Your task to perform on an android device: toggle improve location accuracy Image 0: 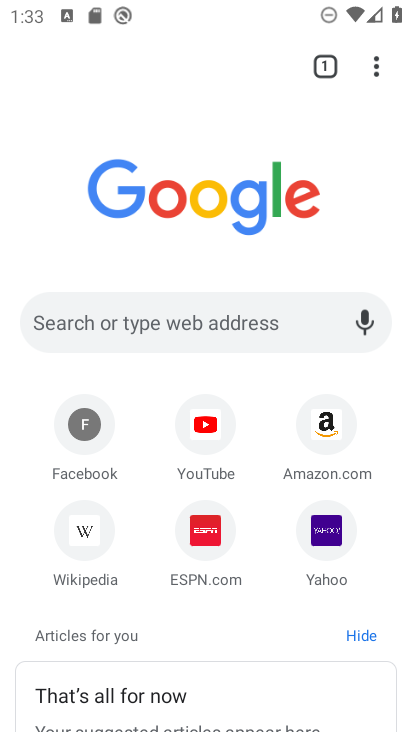
Step 0: press home button
Your task to perform on an android device: toggle improve location accuracy Image 1: 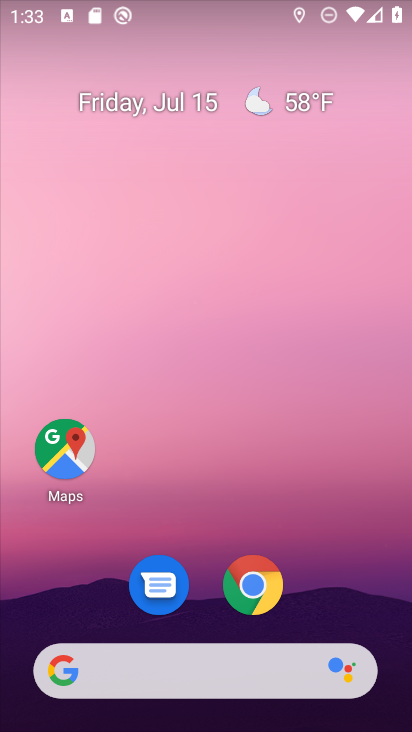
Step 1: drag from (310, 518) to (282, 82)
Your task to perform on an android device: toggle improve location accuracy Image 2: 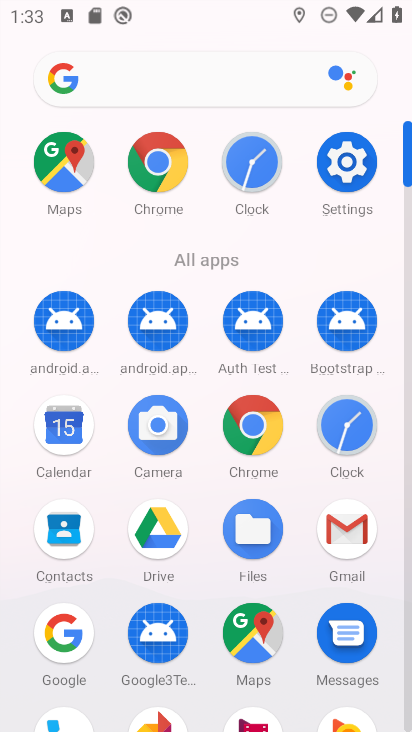
Step 2: click (346, 156)
Your task to perform on an android device: toggle improve location accuracy Image 3: 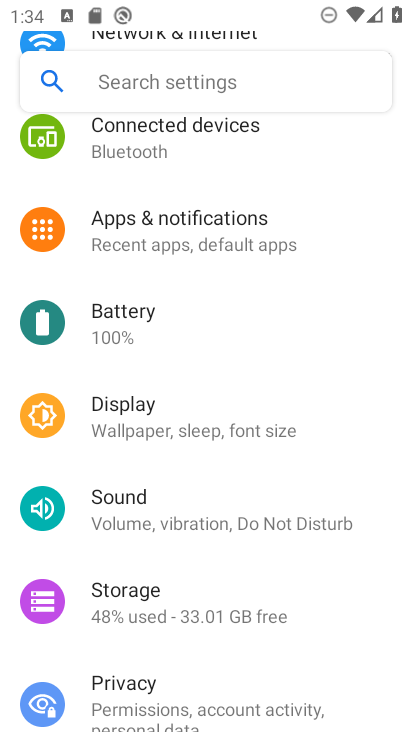
Step 3: drag from (188, 199) to (196, 429)
Your task to perform on an android device: toggle improve location accuracy Image 4: 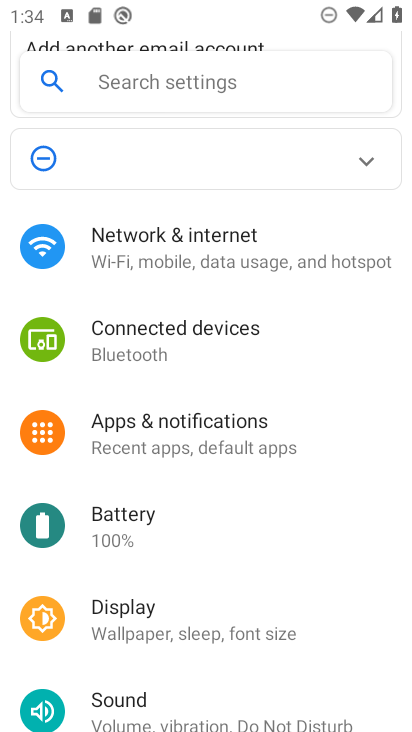
Step 4: drag from (200, 526) to (243, 94)
Your task to perform on an android device: toggle improve location accuracy Image 5: 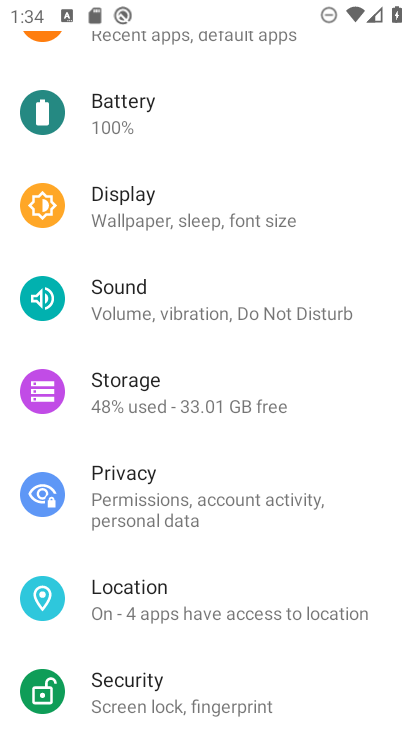
Step 5: click (211, 606)
Your task to perform on an android device: toggle improve location accuracy Image 6: 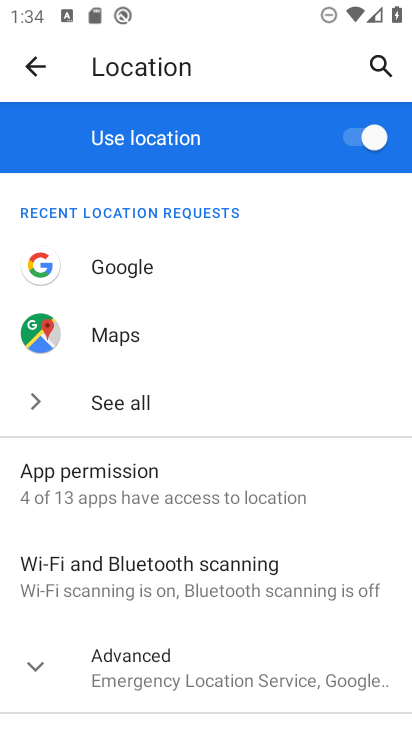
Step 6: drag from (213, 444) to (219, 269)
Your task to perform on an android device: toggle improve location accuracy Image 7: 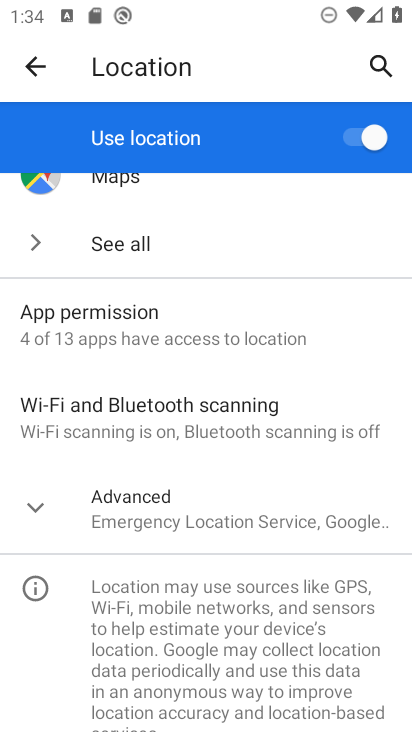
Step 7: click (38, 510)
Your task to perform on an android device: toggle improve location accuracy Image 8: 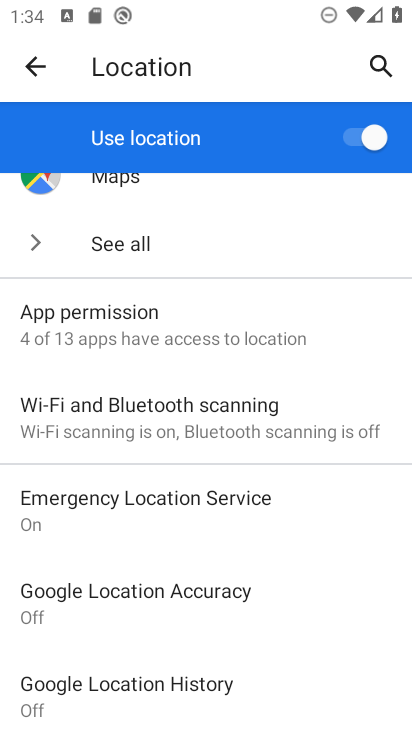
Step 8: click (216, 597)
Your task to perform on an android device: toggle improve location accuracy Image 9: 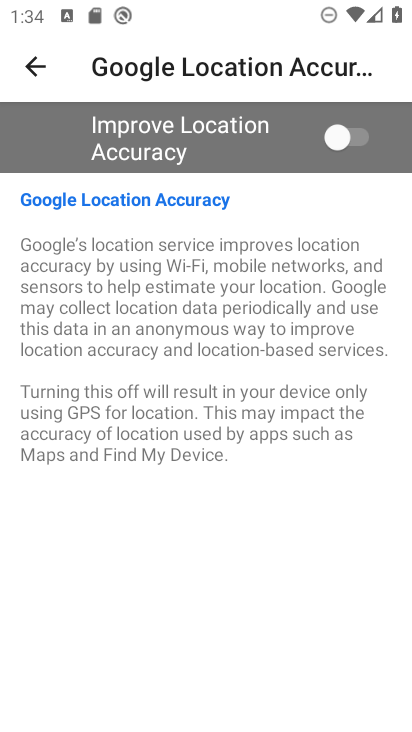
Step 9: click (338, 125)
Your task to perform on an android device: toggle improve location accuracy Image 10: 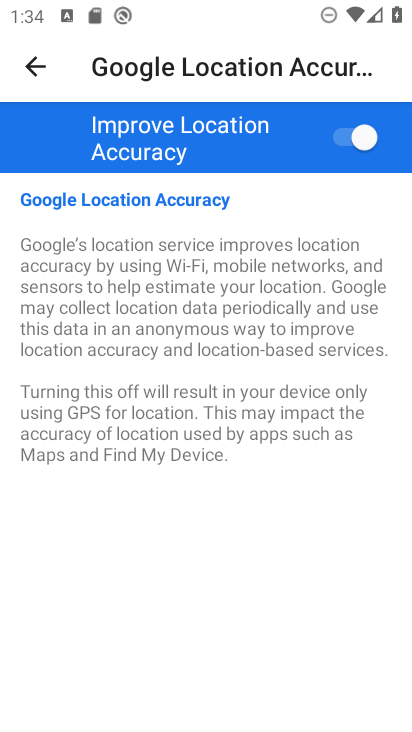
Step 10: task complete